Your task to perform on an android device: Do I have any events tomorrow? Image 0: 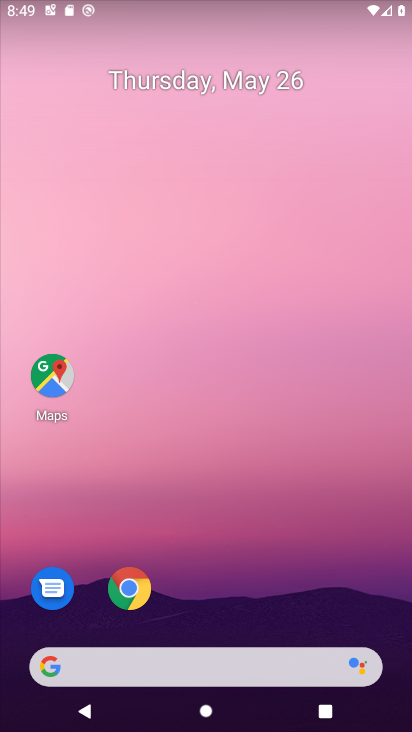
Step 0: drag from (223, 581) to (138, 2)
Your task to perform on an android device: Do I have any events tomorrow? Image 1: 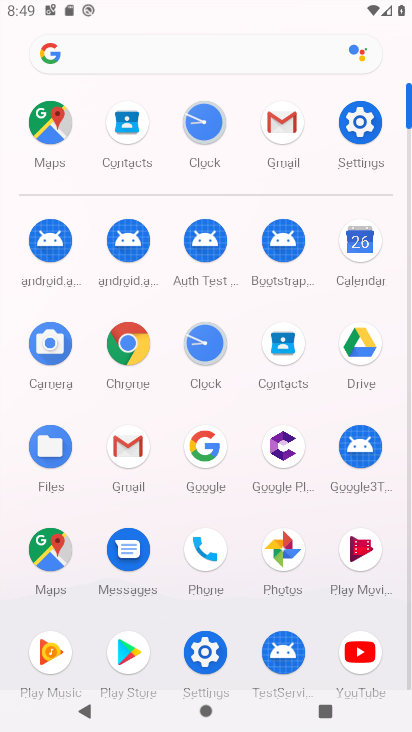
Step 1: click (363, 247)
Your task to perform on an android device: Do I have any events tomorrow? Image 2: 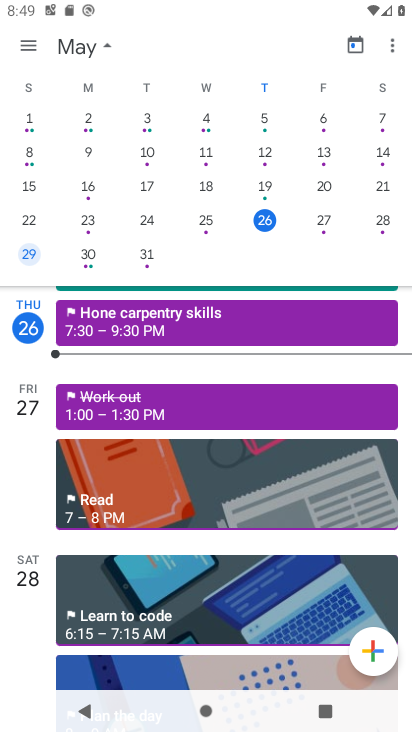
Step 2: click (318, 227)
Your task to perform on an android device: Do I have any events tomorrow? Image 3: 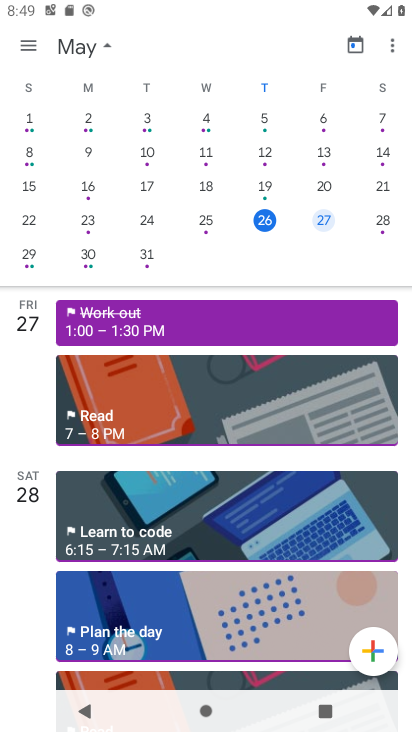
Step 3: task complete